Your task to perform on an android device: Open Google Chrome and open the bookmarks view Image 0: 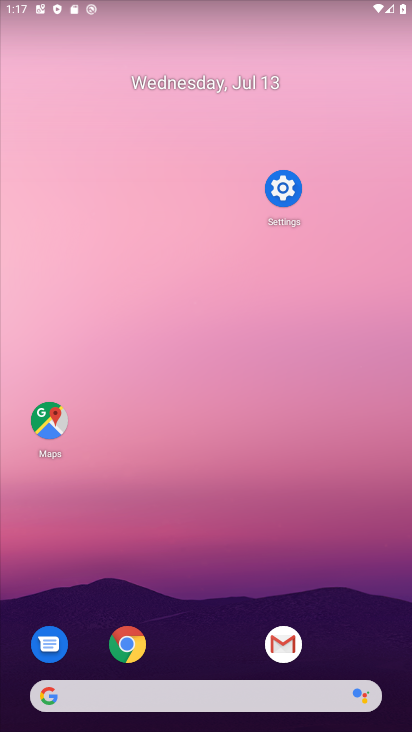
Step 0: click (144, 633)
Your task to perform on an android device: Open Google Chrome and open the bookmarks view Image 1: 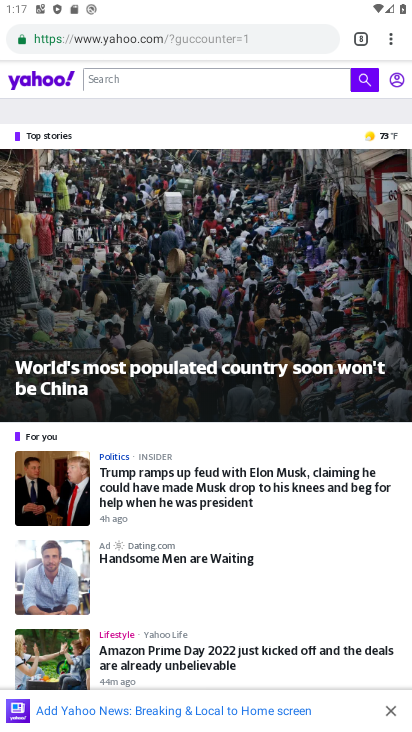
Step 1: click (386, 50)
Your task to perform on an android device: Open Google Chrome and open the bookmarks view Image 2: 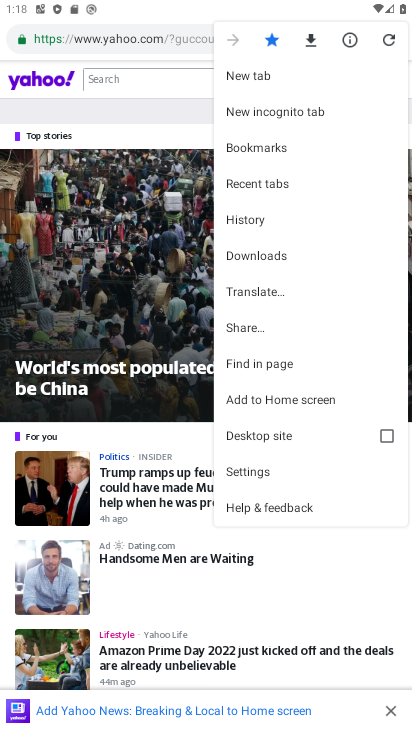
Step 2: click (272, 150)
Your task to perform on an android device: Open Google Chrome and open the bookmarks view Image 3: 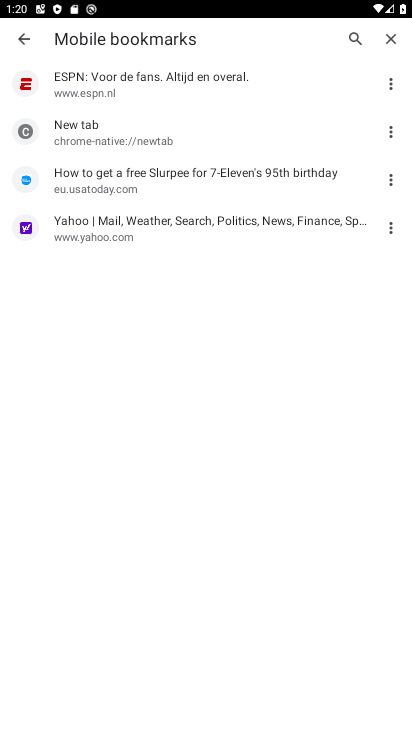
Step 3: task complete